Your task to perform on an android device: change keyboard looks Image 0: 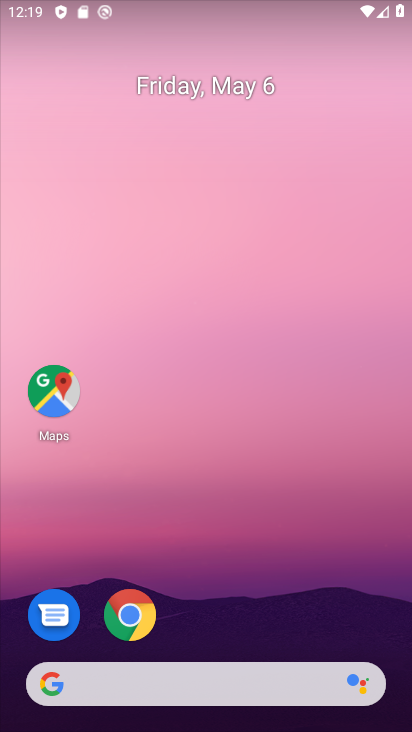
Step 0: drag from (280, 582) to (288, 46)
Your task to perform on an android device: change keyboard looks Image 1: 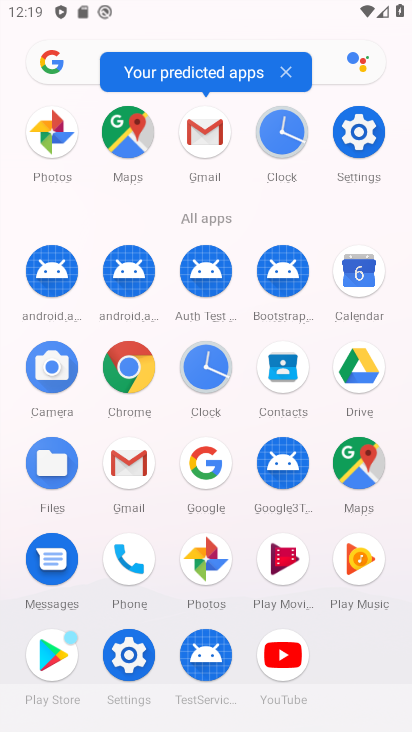
Step 1: click (356, 132)
Your task to perform on an android device: change keyboard looks Image 2: 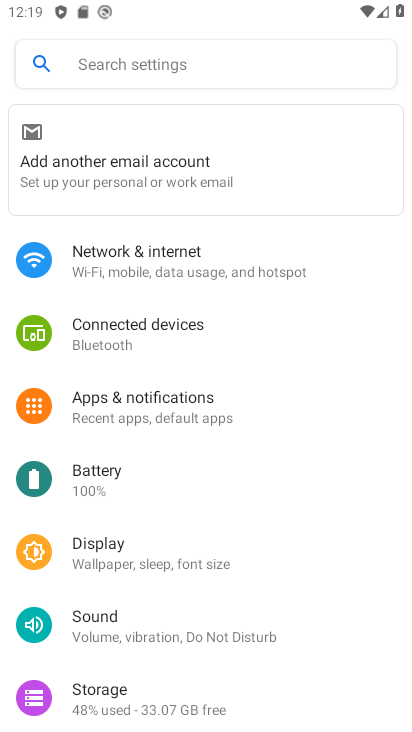
Step 2: drag from (255, 522) to (270, 174)
Your task to perform on an android device: change keyboard looks Image 3: 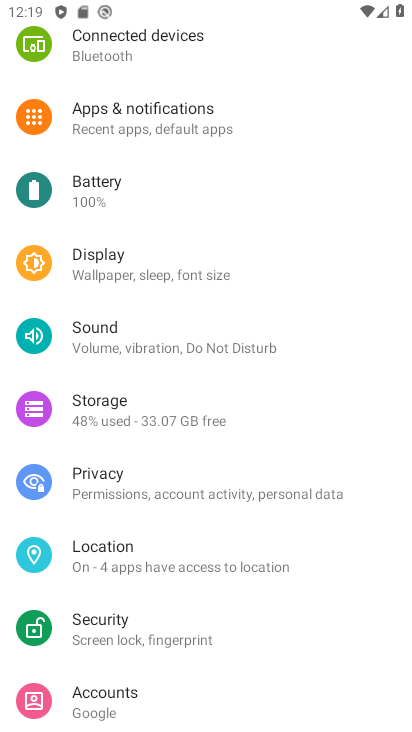
Step 3: drag from (203, 644) to (251, 129)
Your task to perform on an android device: change keyboard looks Image 4: 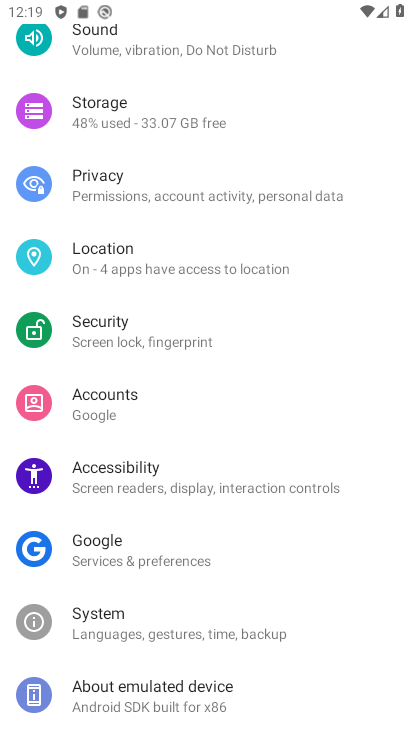
Step 4: drag from (205, 558) to (247, 201)
Your task to perform on an android device: change keyboard looks Image 5: 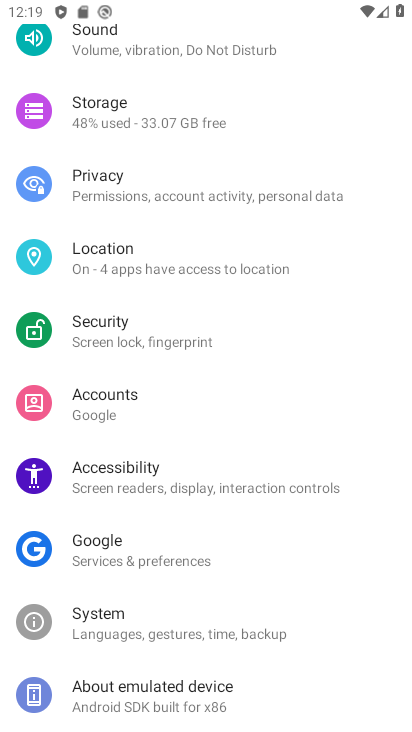
Step 5: click (174, 633)
Your task to perform on an android device: change keyboard looks Image 6: 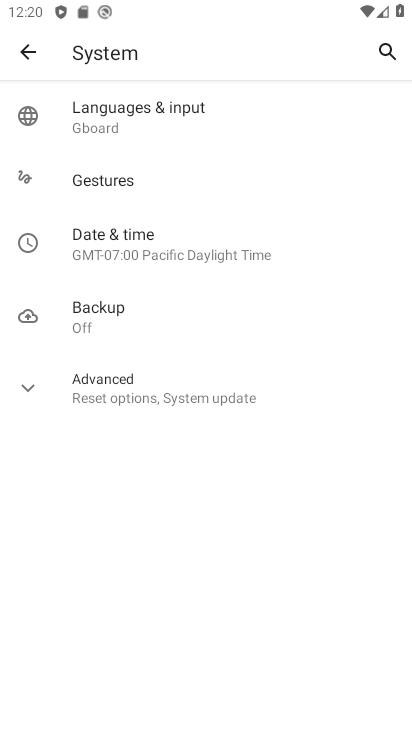
Step 6: click (147, 107)
Your task to perform on an android device: change keyboard looks Image 7: 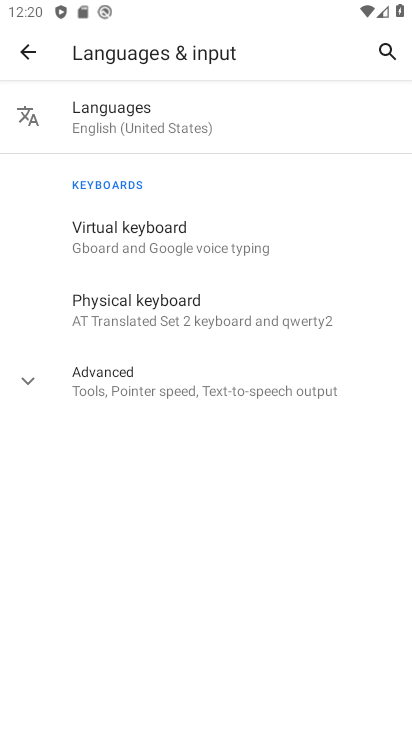
Step 7: click (133, 236)
Your task to perform on an android device: change keyboard looks Image 8: 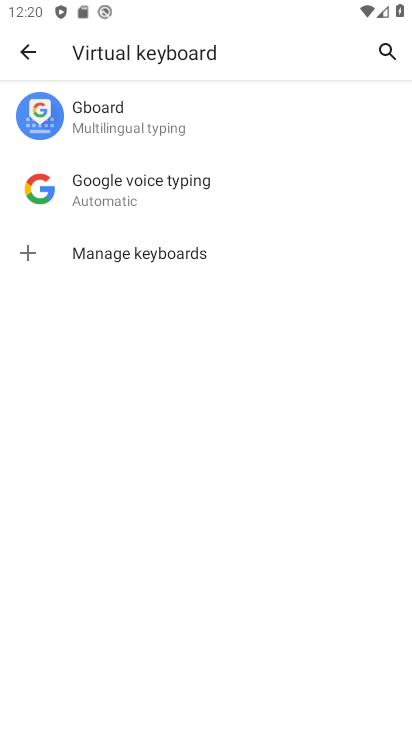
Step 8: click (134, 110)
Your task to perform on an android device: change keyboard looks Image 9: 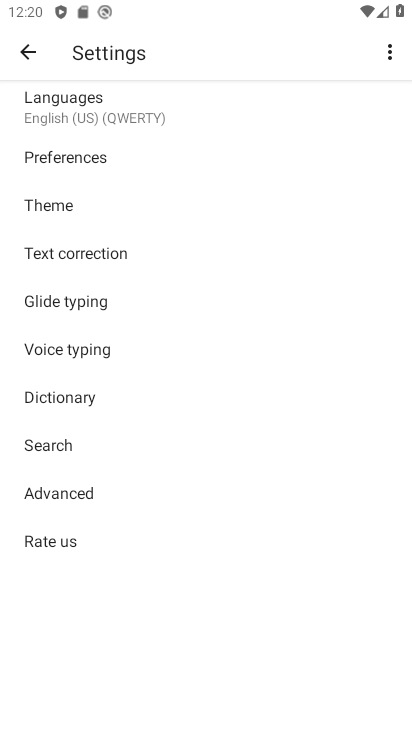
Step 9: click (105, 207)
Your task to perform on an android device: change keyboard looks Image 10: 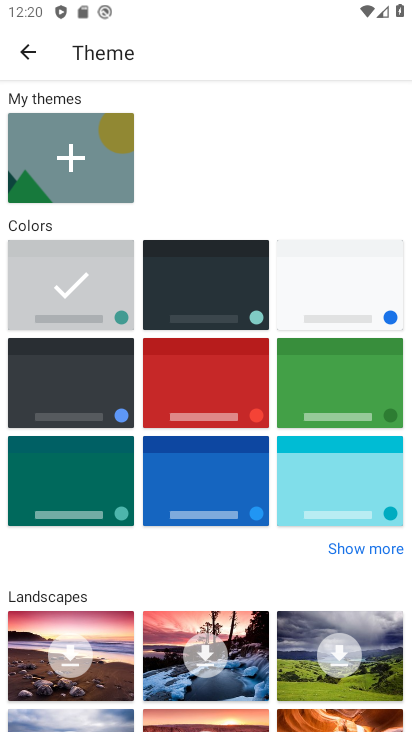
Step 10: click (173, 276)
Your task to perform on an android device: change keyboard looks Image 11: 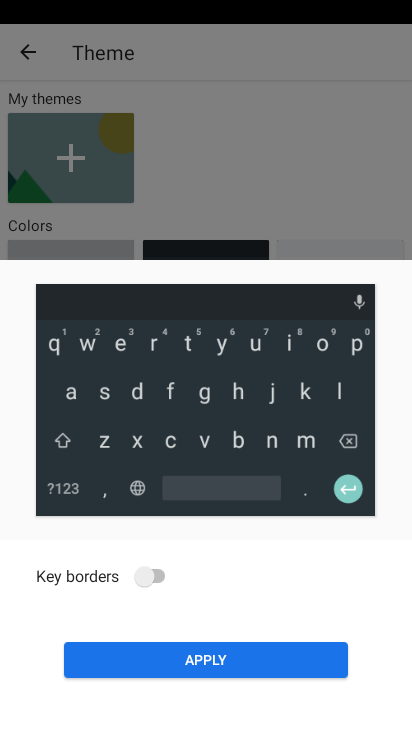
Step 11: click (153, 566)
Your task to perform on an android device: change keyboard looks Image 12: 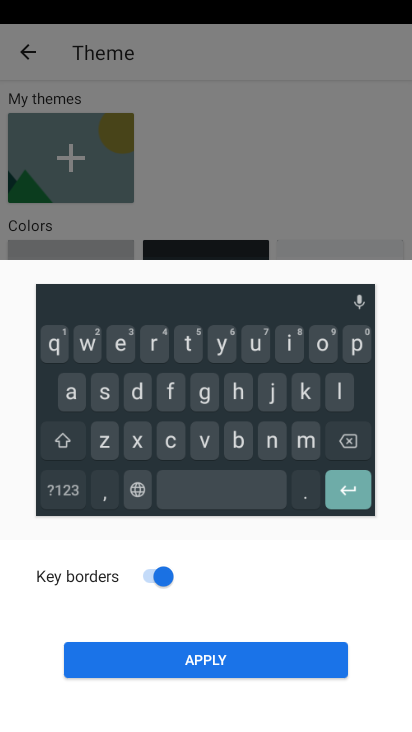
Step 12: click (213, 658)
Your task to perform on an android device: change keyboard looks Image 13: 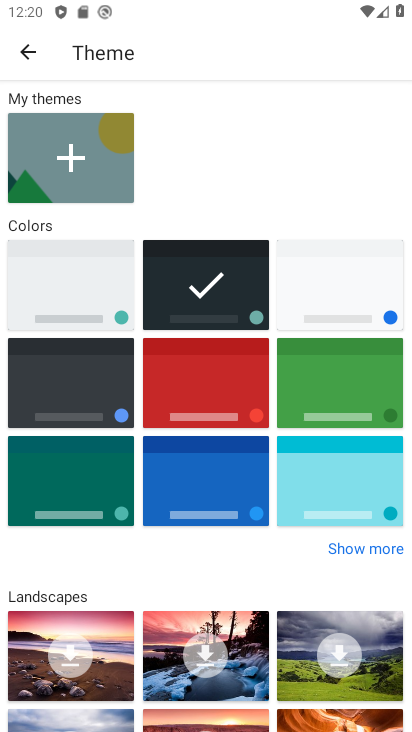
Step 13: task complete